Your task to perform on an android device: Open settings Image 0: 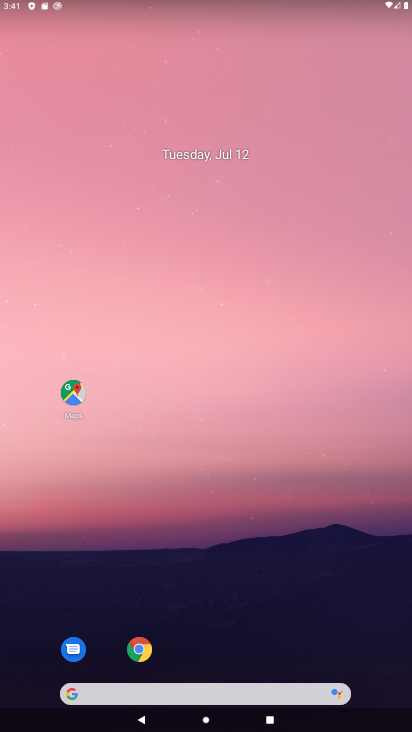
Step 0: press home button
Your task to perform on an android device: Open settings Image 1: 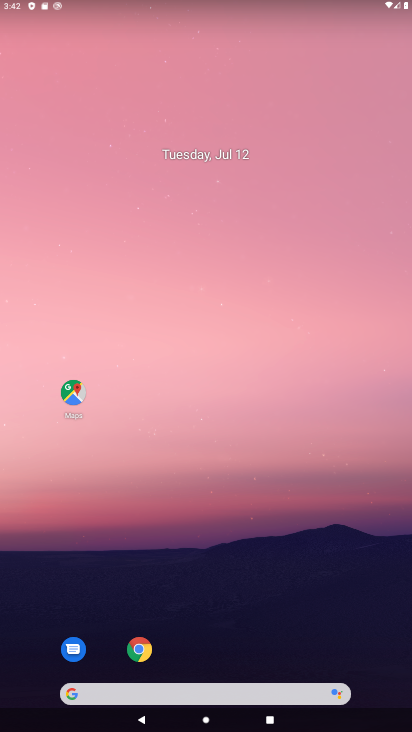
Step 1: drag from (228, 656) to (236, 36)
Your task to perform on an android device: Open settings Image 2: 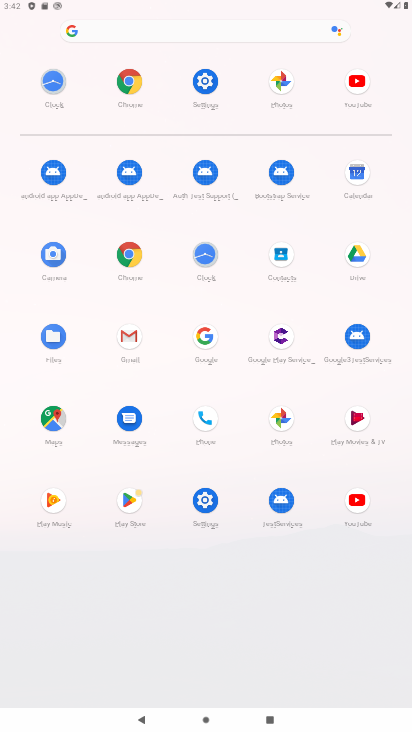
Step 2: click (202, 74)
Your task to perform on an android device: Open settings Image 3: 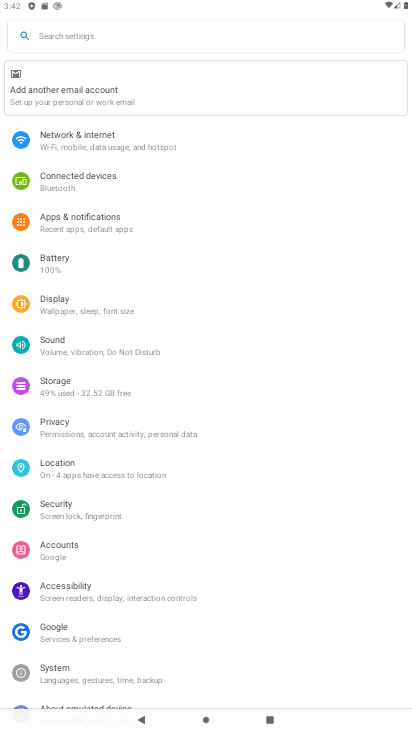
Step 3: task complete